Your task to perform on an android device: Open location settings Image 0: 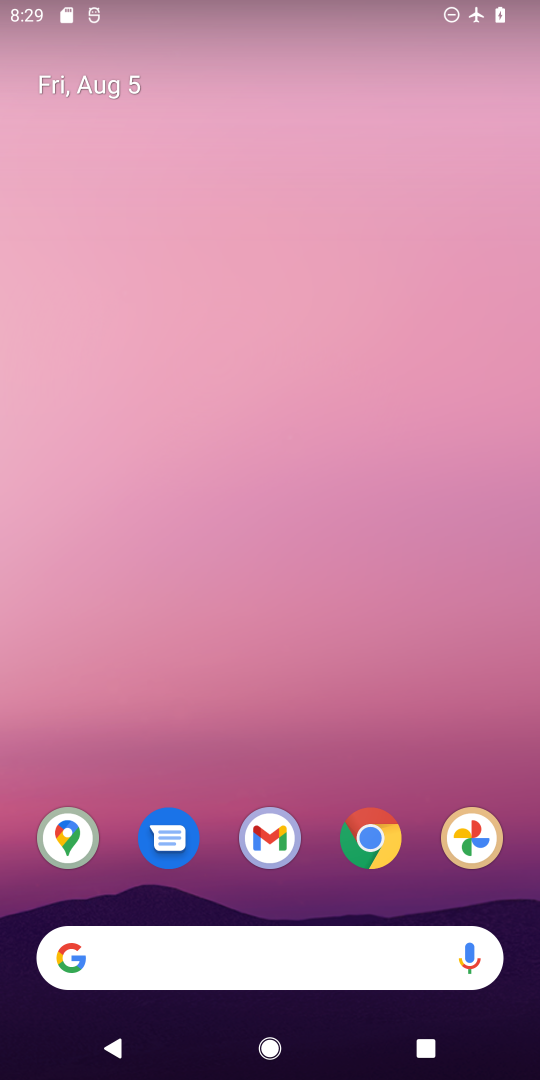
Step 0: drag from (281, 900) to (333, 215)
Your task to perform on an android device: Open location settings Image 1: 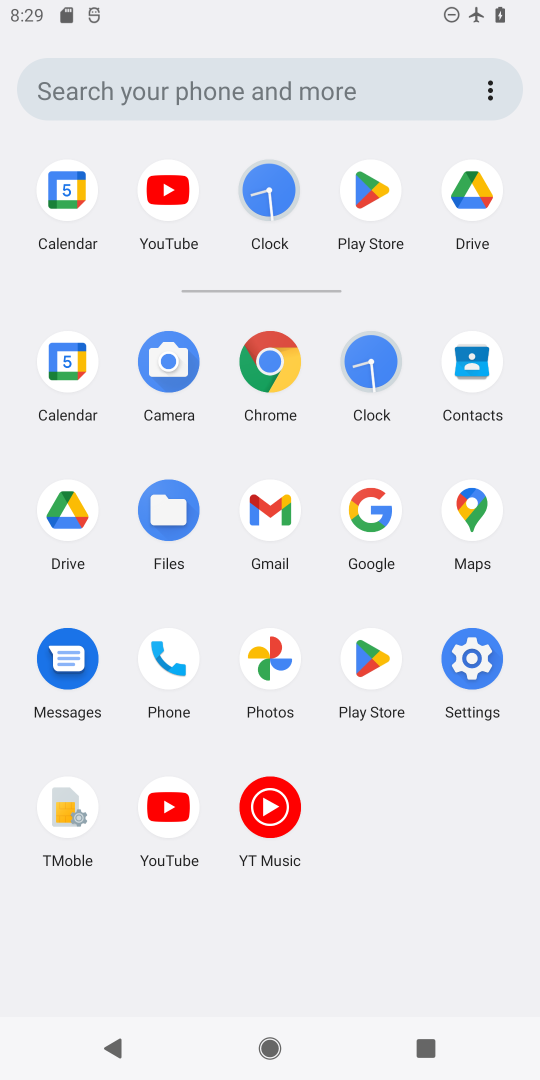
Step 1: click (472, 661)
Your task to perform on an android device: Open location settings Image 2: 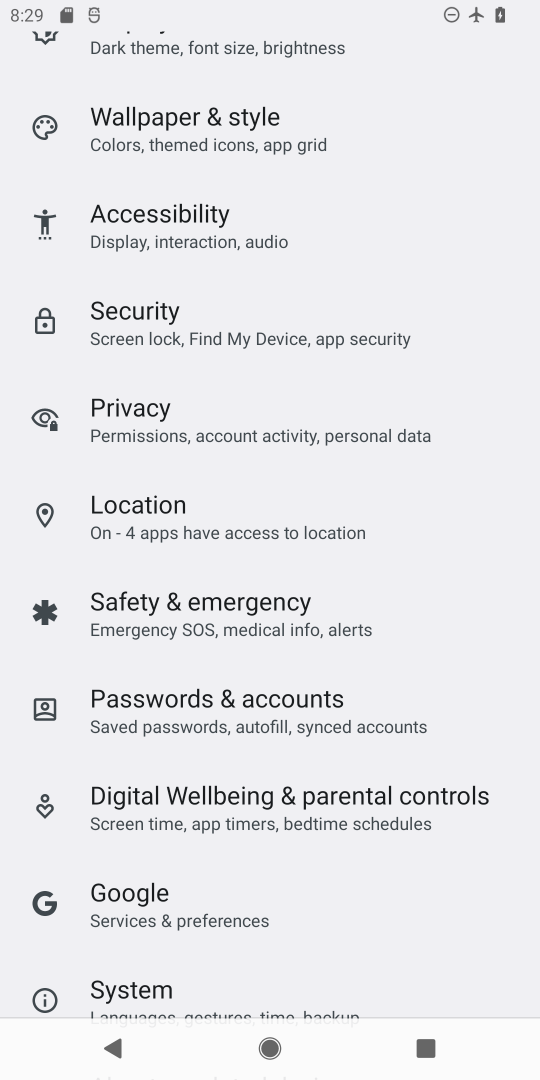
Step 2: drag from (145, 979) to (163, 594)
Your task to perform on an android device: Open location settings Image 3: 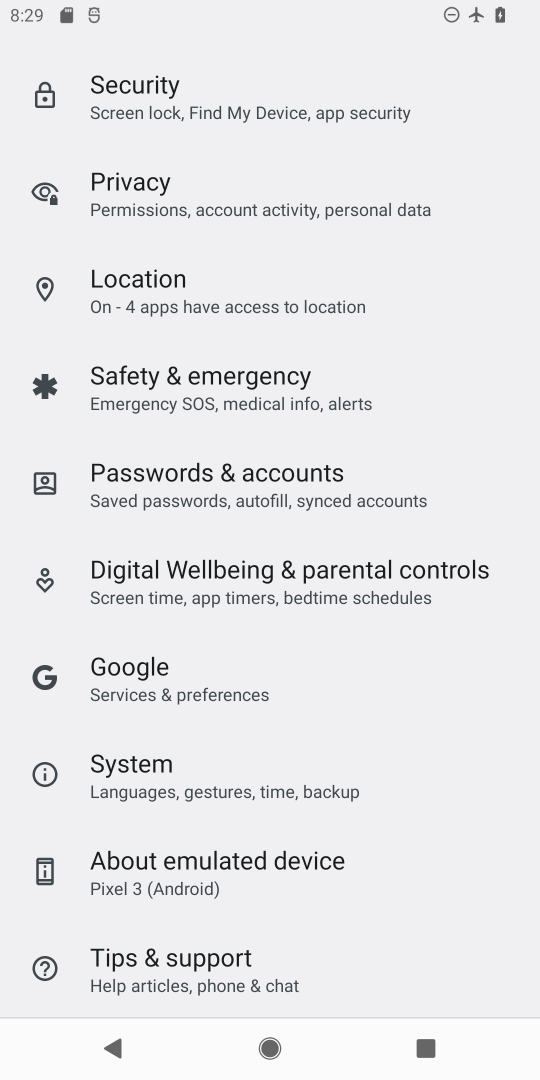
Step 3: drag from (154, 983) to (152, 556)
Your task to perform on an android device: Open location settings Image 4: 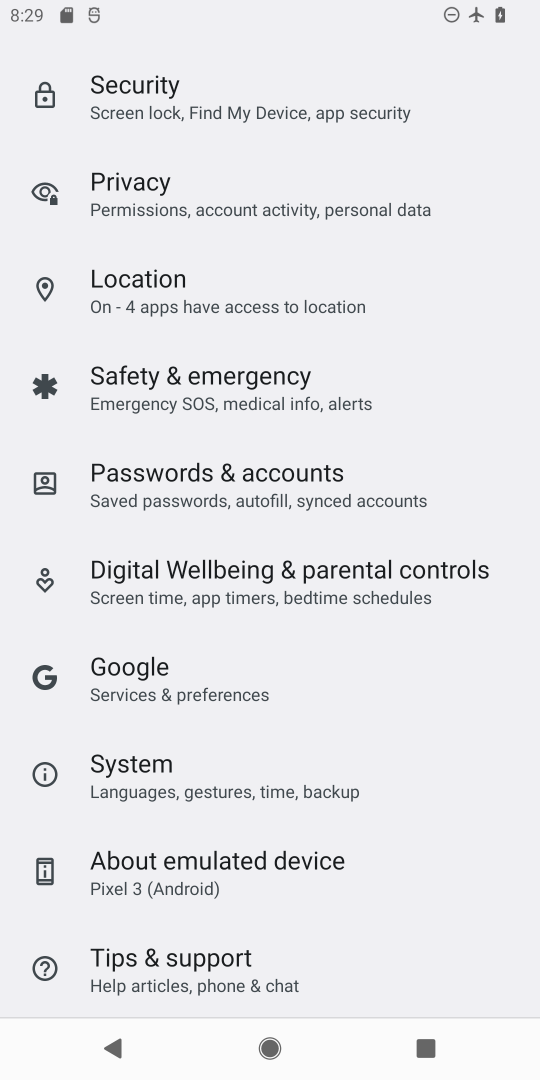
Step 4: click (150, 297)
Your task to perform on an android device: Open location settings Image 5: 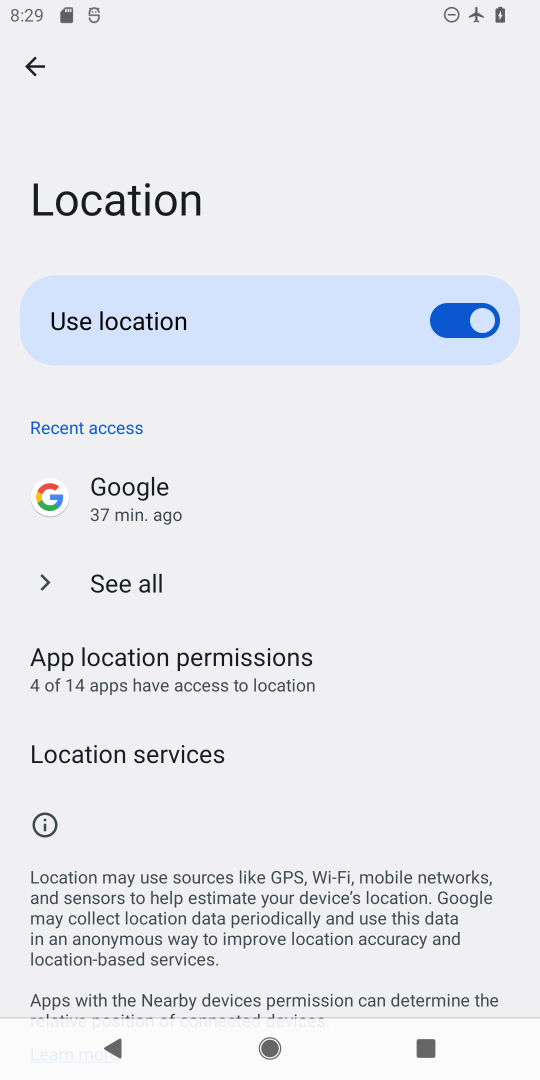
Step 5: task complete